Your task to perform on an android device: Go to network settings Image 0: 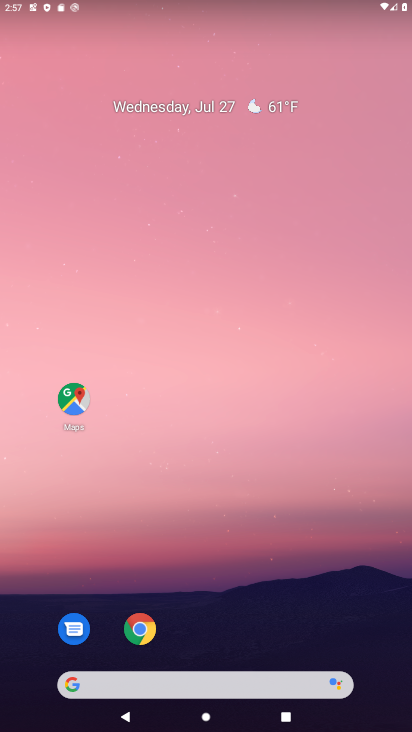
Step 0: drag from (191, 684) to (411, 47)
Your task to perform on an android device: Go to network settings Image 1: 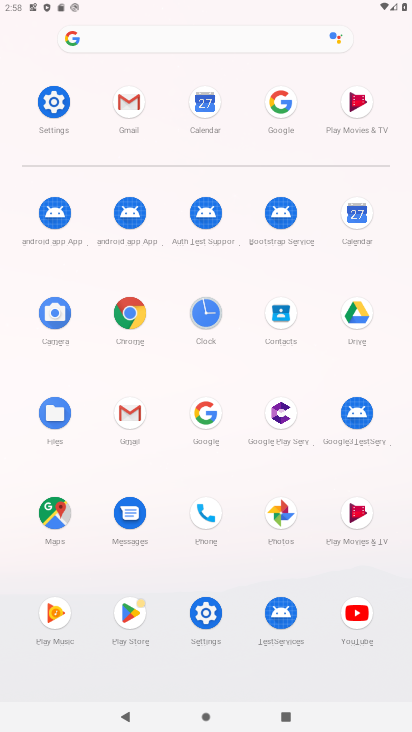
Step 1: click (50, 100)
Your task to perform on an android device: Go to network settings Image 2: 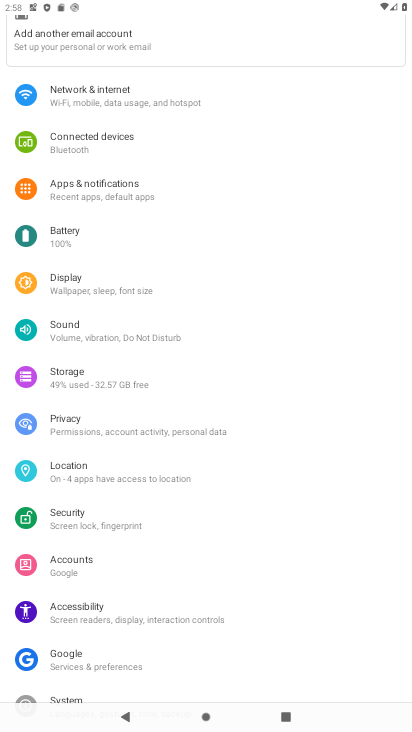
Step 2: click (92, 97)
Your task to perform on an android device: Go to network settings Image 3: 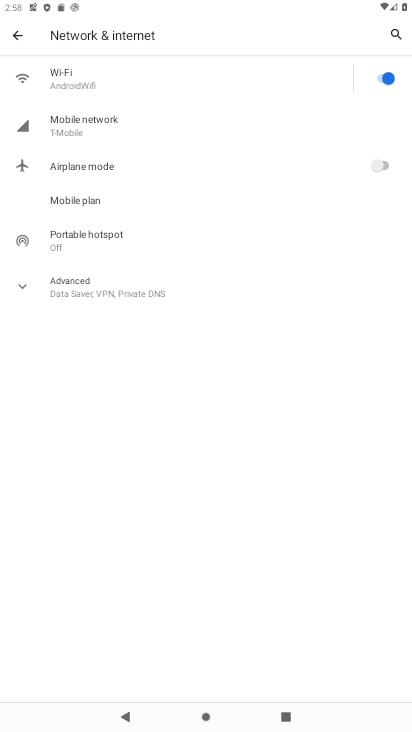
Step 3: task complete